Your task to perform on an android device: Open the calendar app, open the side menu, and click the "Day" option Image 0: 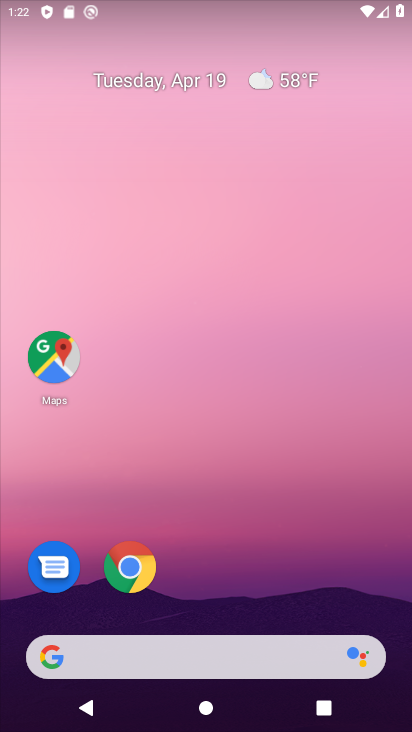
Step 0: drag from (202, 578) to (236, 161)
Your task to perform on an android device: Open the calendar app, open the side menu, and click the "Day" option Image 1: 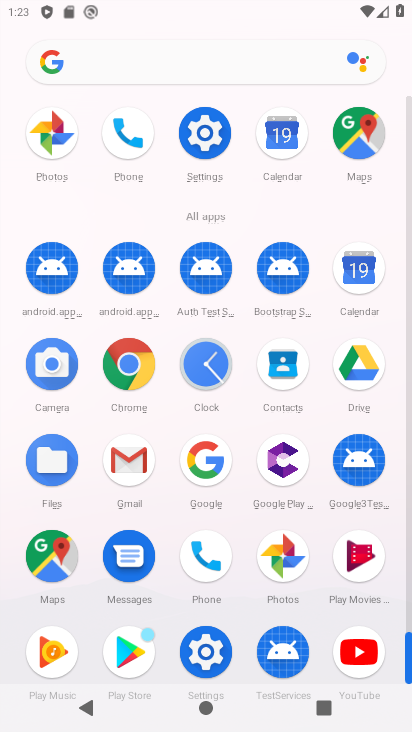
Step 1: click (373, 280)
Your task to perform on an android device: Open the calendar app, open the side menu, and click the "Day" option Image 2: 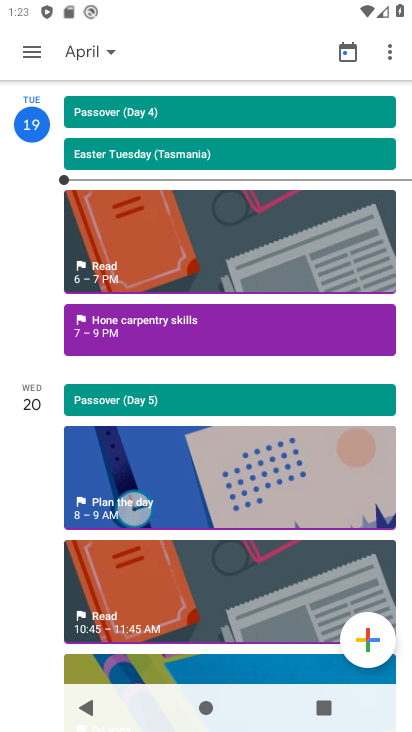
Step 2: click (33, 57)
Your task to perform on an android device: Open the calendar app, open the side menu, and click the "Day" option Image 3: 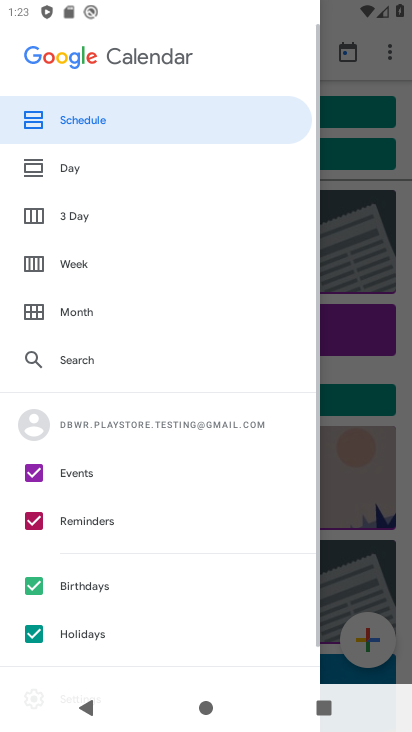
Step 3: click (76, 171)
Your task to perform on an android device: Open the calendar app, open the side menu, and click the "Day" option Image 4: 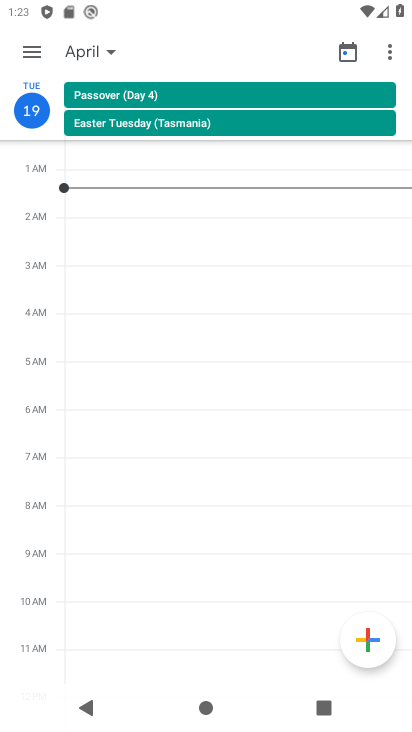
Step 4: task complete